Your task to perform on an android device: set an alarm Image 0: 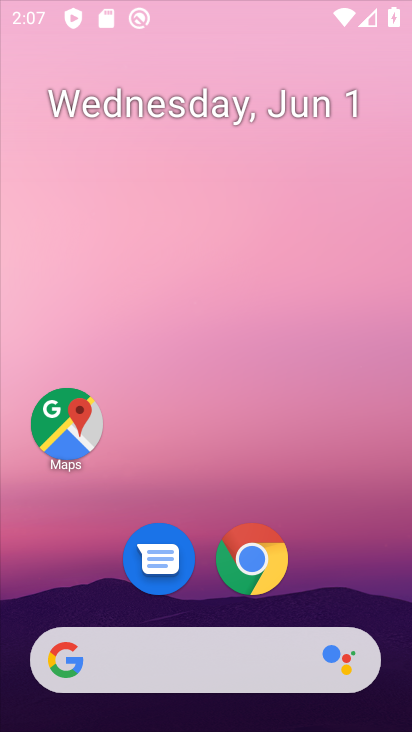
Step 0: press home button
Your task to perform on an android device: set an alarm Image 1: 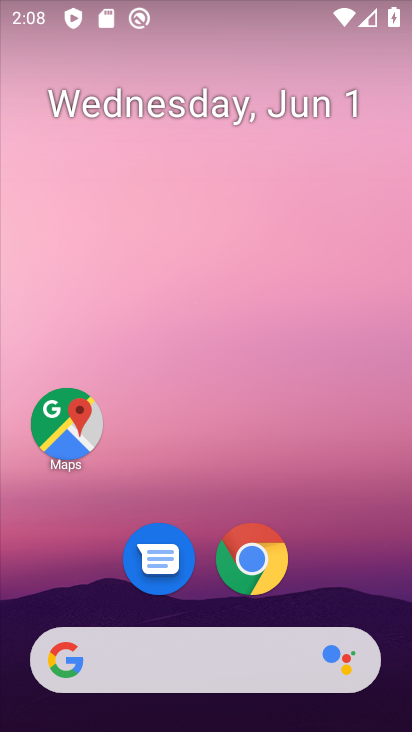
Step 1: drag from (312, 606) to (257, 263)
Your task to perform on an android device: set an alarm Image 2: 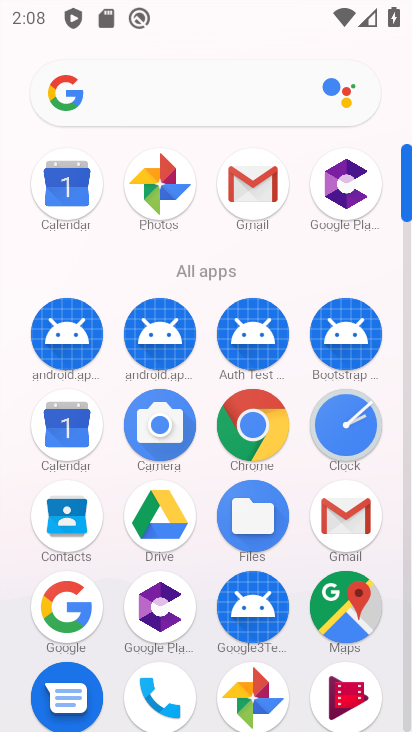
Step 2: click (345, 441)
Your task to perform on an android device: set an alarm Image 3: 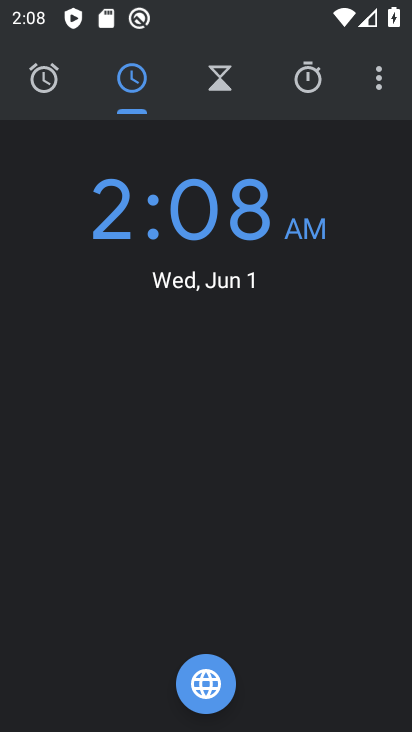
Step 3: click (50, 84)
Your task to perform on an android device: set an alarm Image 4: 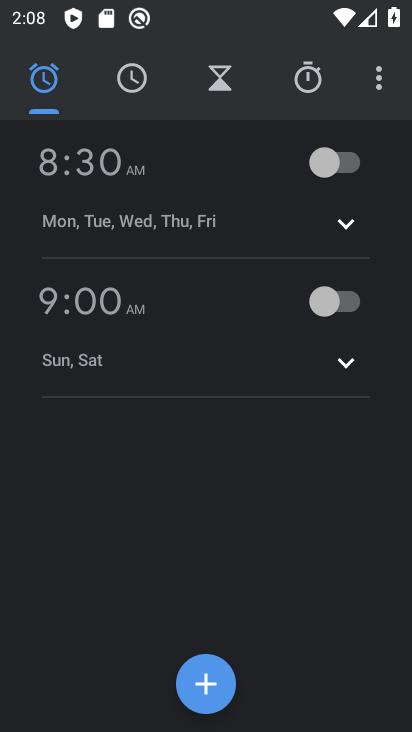
Step 4: click (330, 170)
Your task to perform on an android device: set an alarm Image 5: 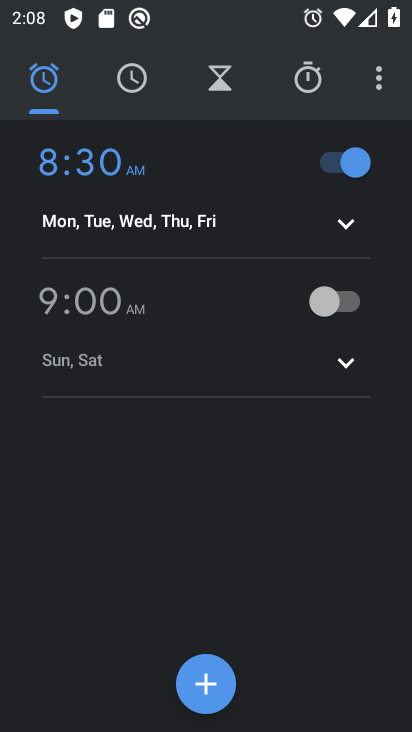
Step 5: task complete